Your task to perform on an android device: manage bookmarks in the chrome app Image 0: 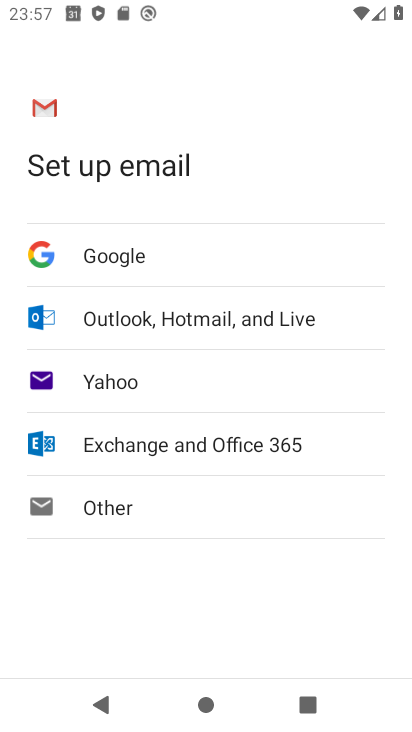
Step 0: press home button
Your task to perform on an android device: manage bookmarks in the chrome app Image 1: 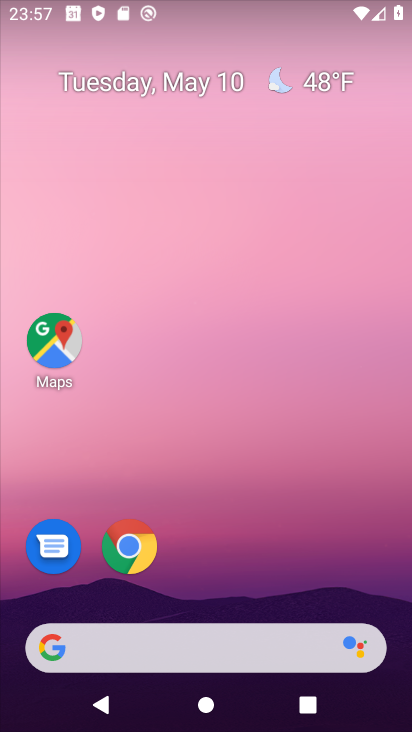
Step 1: click (144, 553)
Your task to perform on an android device: manage bookmarks in the chrome app Image 2: 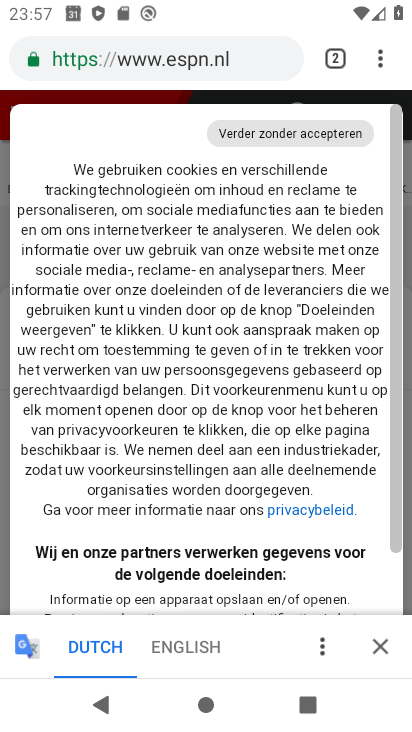
Step 2: task complete